Your task to perform on an android device: check battery use Image 0: 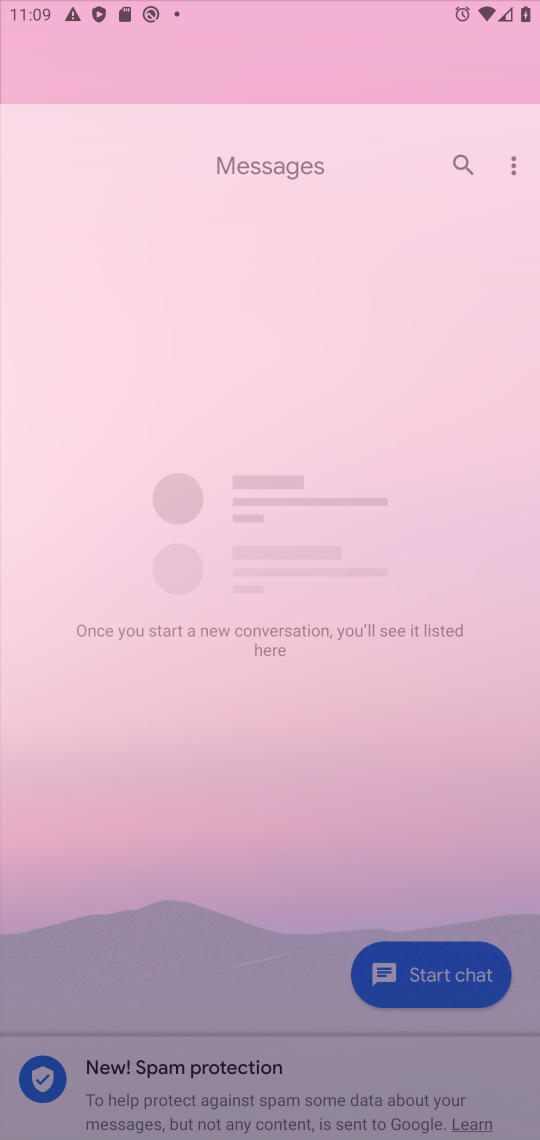
Step 0: click (366, 970)
Your task to perform on an android device: check battery use Image 1: 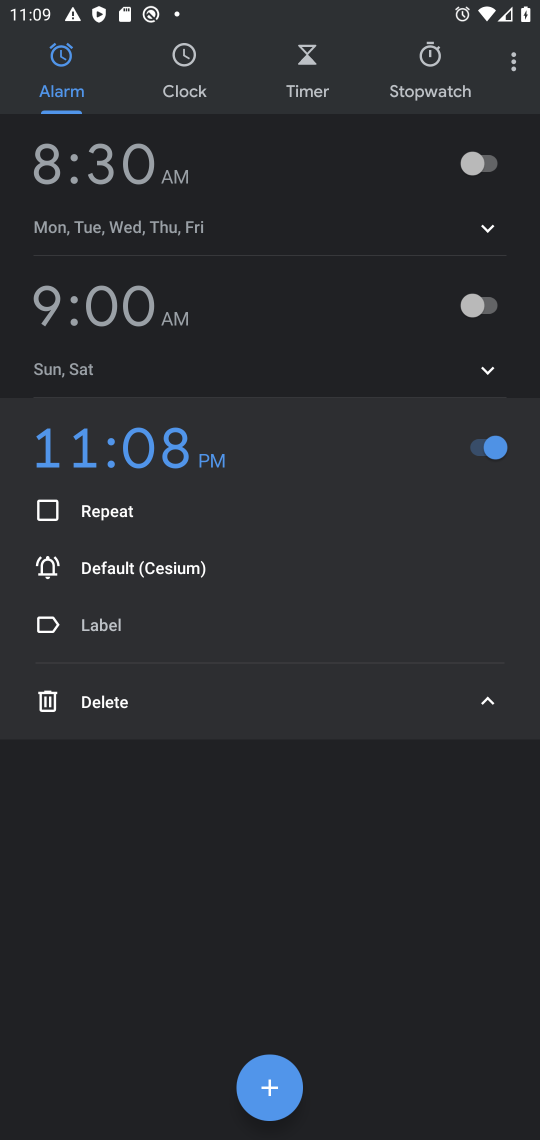
Step 1: press home button
Your task to perform on an android device: check battery use Image 2: 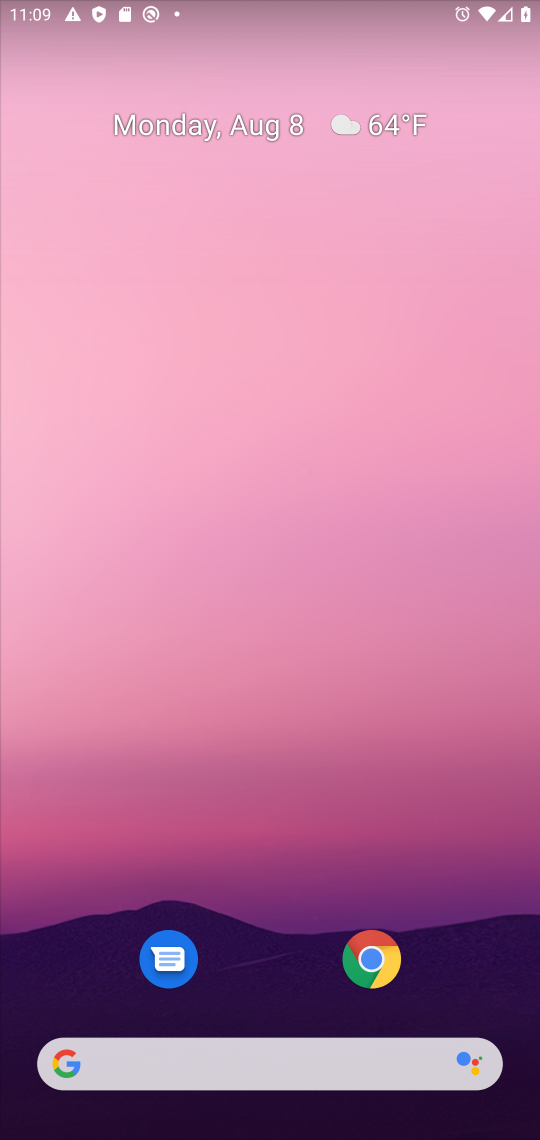
Step 2: drag from (274, 963) to (248, 168)
Your task to perform on an android device: check battery use Image 3: 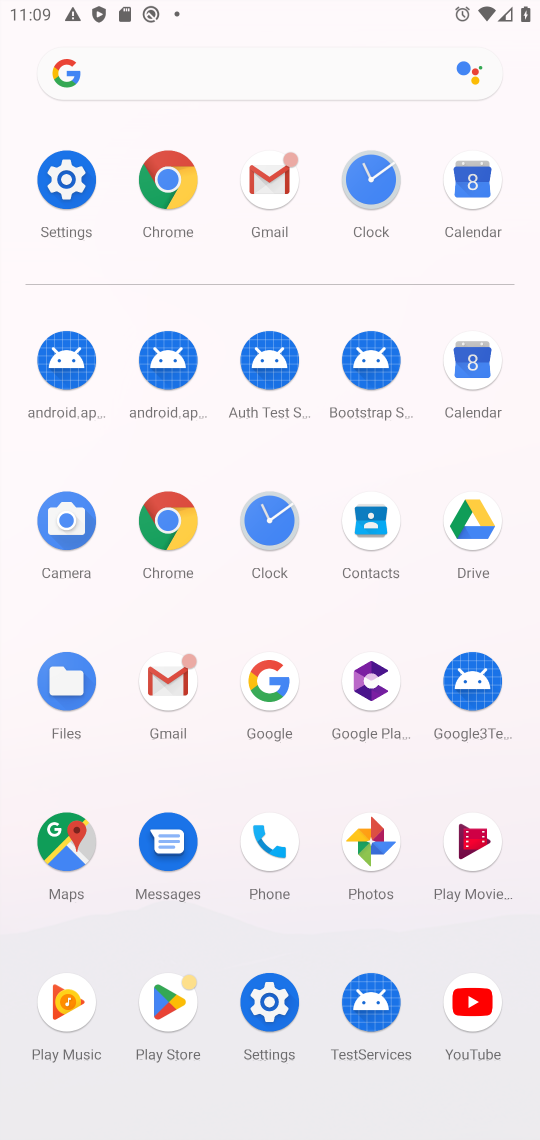
Step 3: click (48, 203)
Your task to perform on an android device: check battery use Image 4: 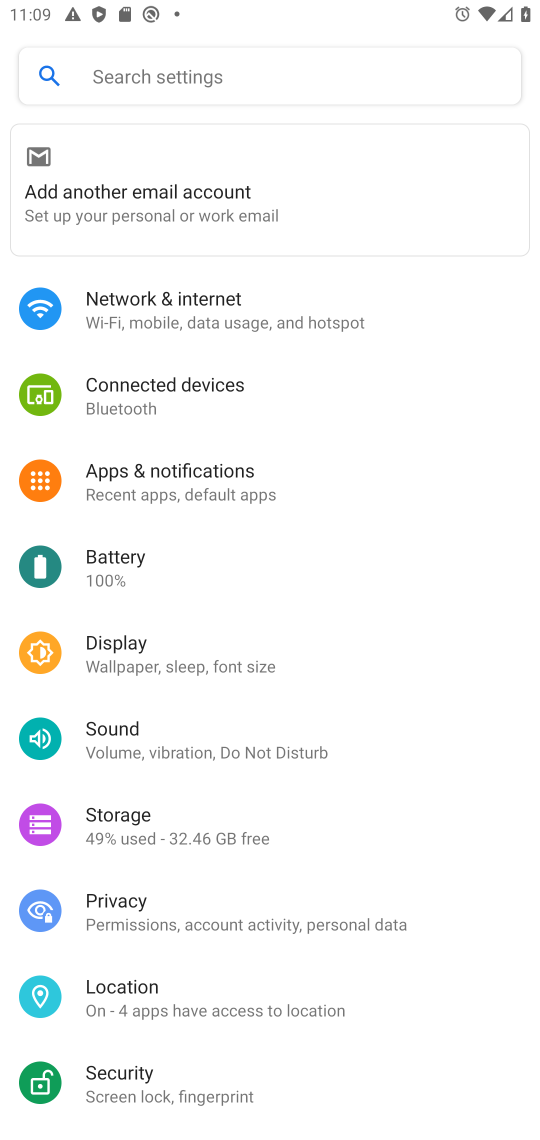
Step 4: click (182, 569)
Your task to perform on an android device: check battery use Image 5: 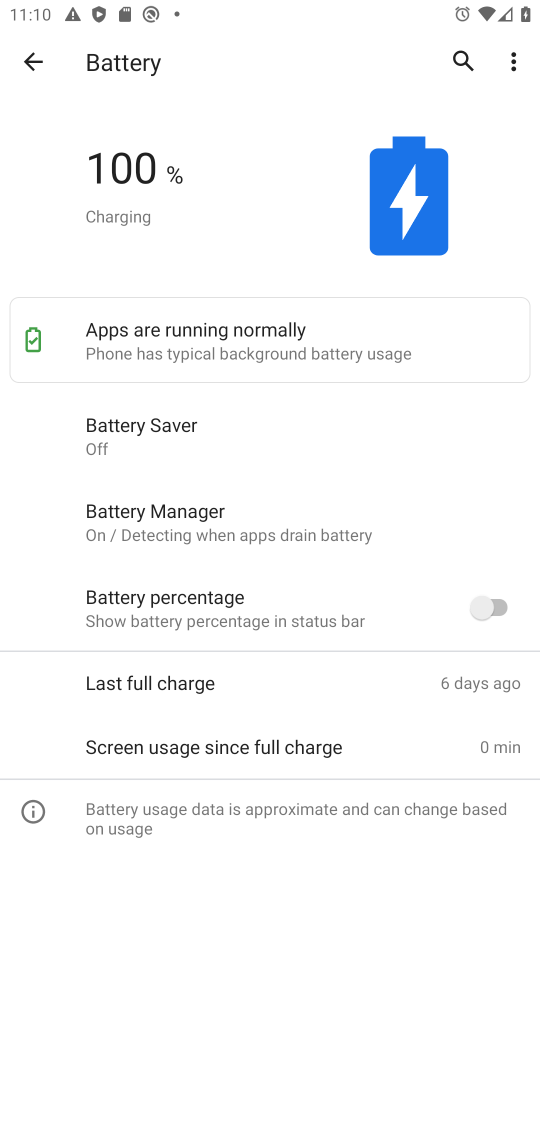
Step 5: click (527, 59)
Your task to perform on an android device: check battery use Image 6: 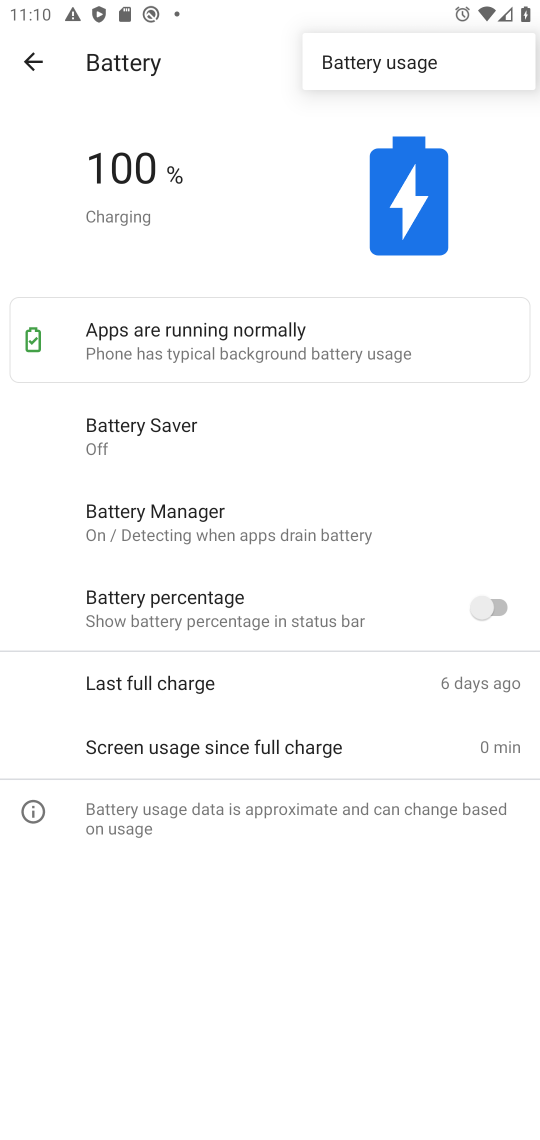
Step 6: click (442, 71)
Your task to perform on an android device: check battery use Image 7: 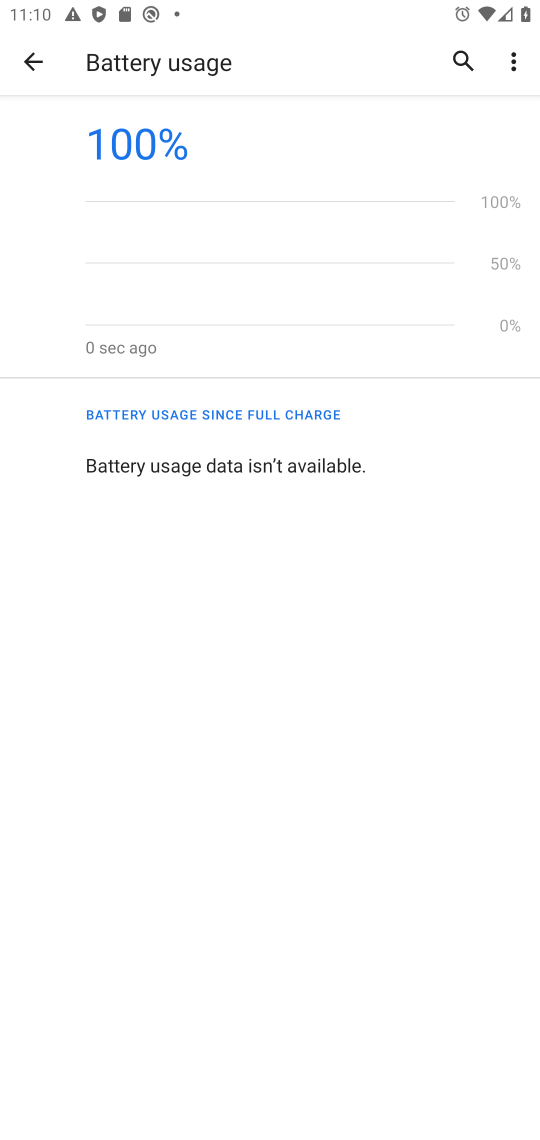
Step 7: task complete